Your task to perform on an android device: Find coffee shops on Maps Image 0: 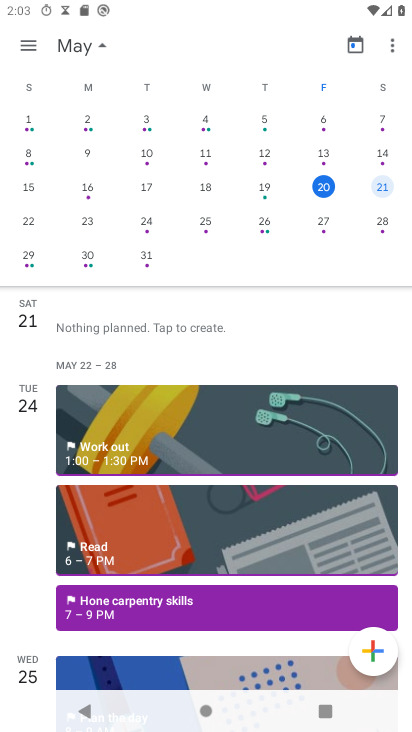
Step 0: press home button
Your task to perform on an android device: Find coffee shops on Maps Image 1: 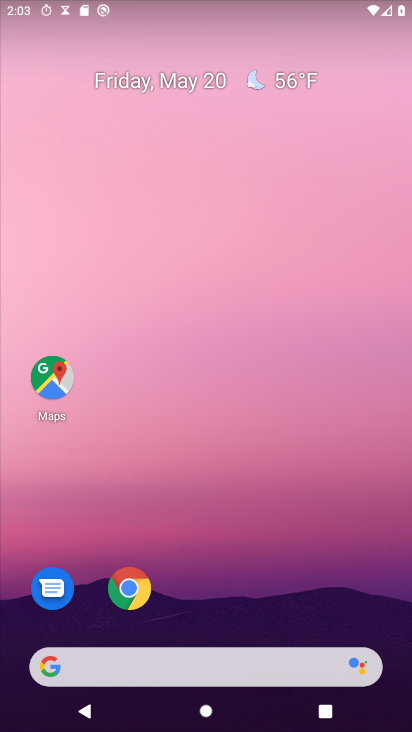
Step 1: click (38, 384)
Your task to perform on an android device: Find coffee shops on Maps Image 2: 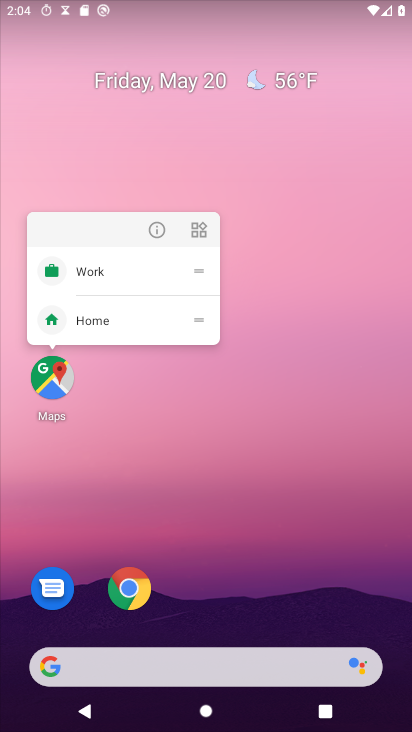
Step 2: click (266, 427)
Your task to perform on an android device: Find coffee shops on Maps Image 3: 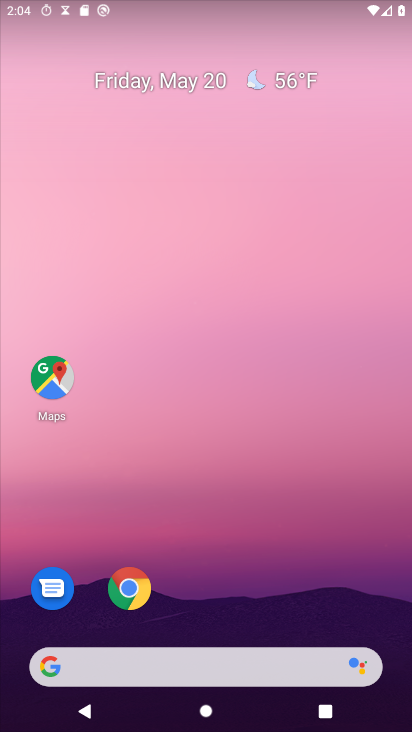
Step 3: click (57, 390)
Your task to perform on an android device: Find coffee shops on Maps Image 4: 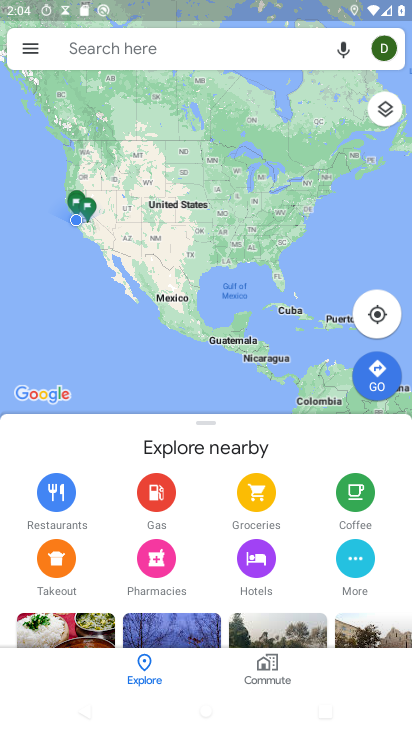
Step 4: click (238, 56)
Your task to perform on an android device: Find coffee shops on Maps Image 5: 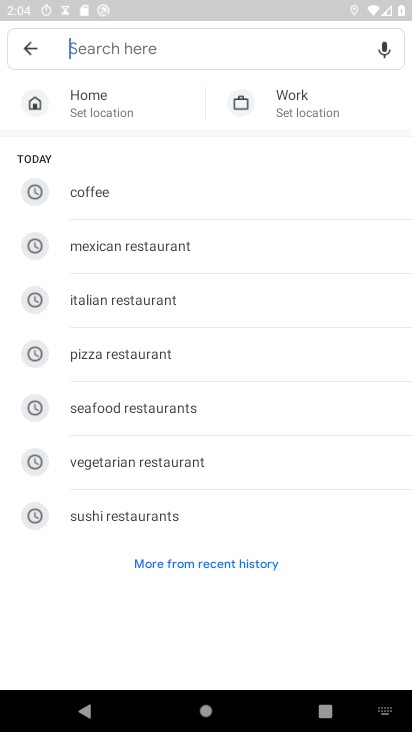
Step 5: click (120, 189)
Your task to perform on an android device: Find coffee shops on Maps Image 6: 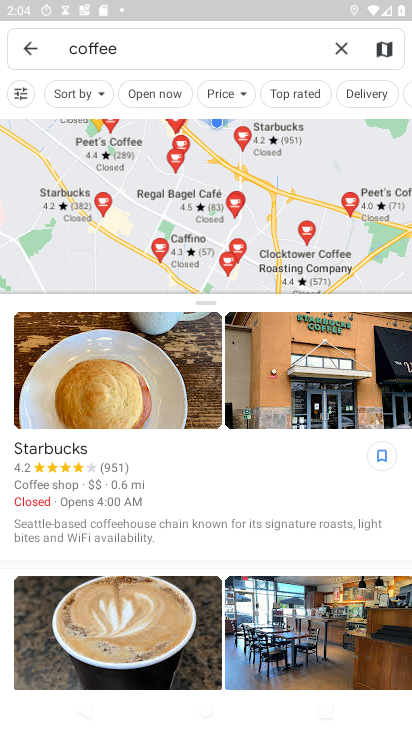
Step 6: task complete